Your task to perform on an android device: Toggle the flashlight Image 0: 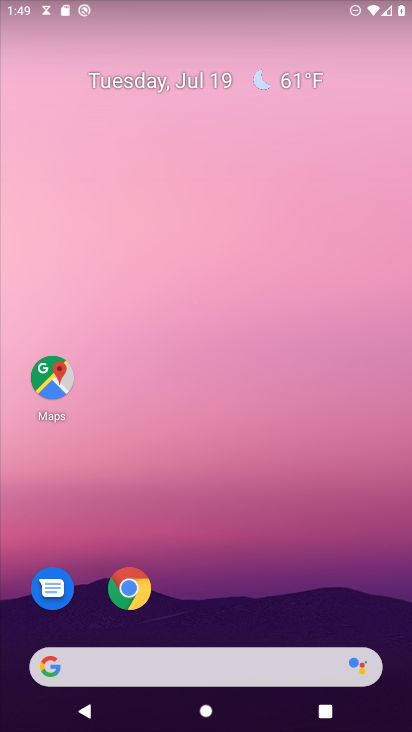
Step 0: drag from (280, 677) to (195, 223)
Your task to perform on an android device: Toggle the flashlight Image 1: 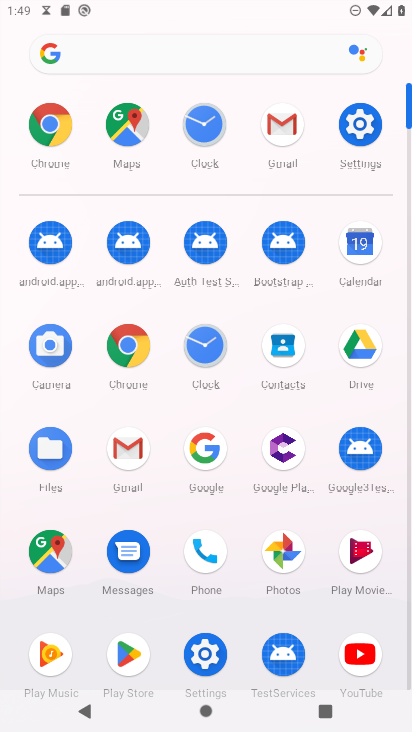
Step 1: click (364, 115)
Your task to perform on an android device: Toggle the flashlight Image 2: 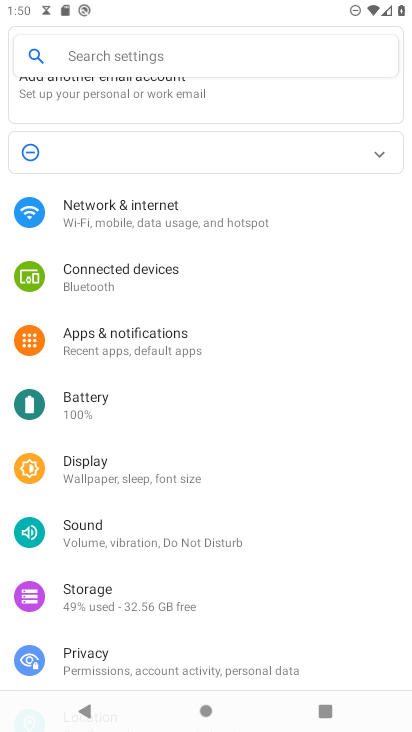
Step 2: click (93, 51)
Your task to perform on an android device: Toggle the flashlight Image 3: 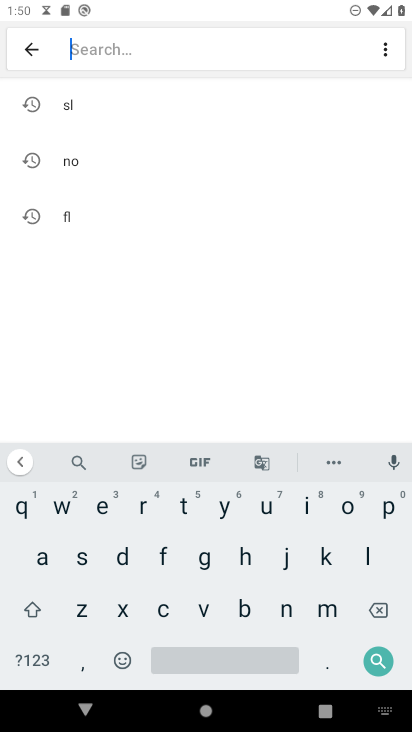
Step 3: click (165, 546)
Your task to perform on an android device: Toggle the flashlight Image 4: 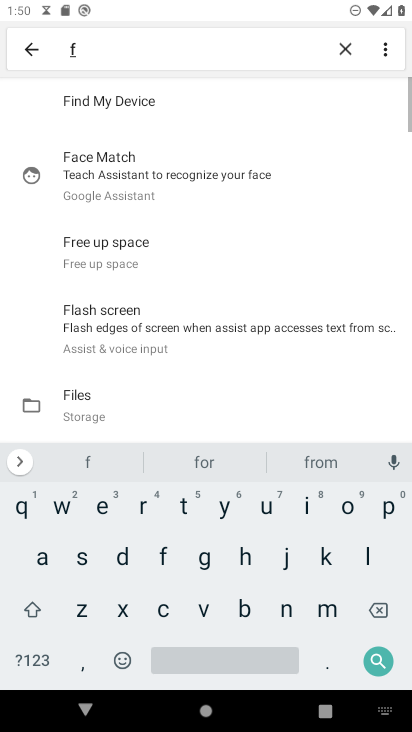
Step 4: click (370, 559)
Your task to perform on an android device: Toggle the flashlight Image 5: 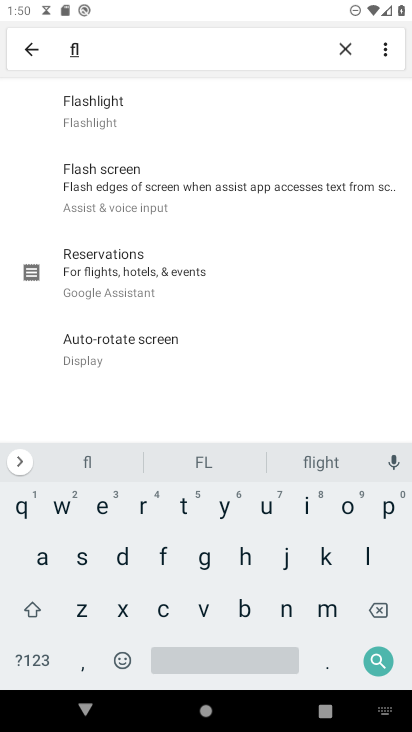
Step 5: click (104, 93)
Your task to perform on an android device: Toggle the flashlight Image 6: 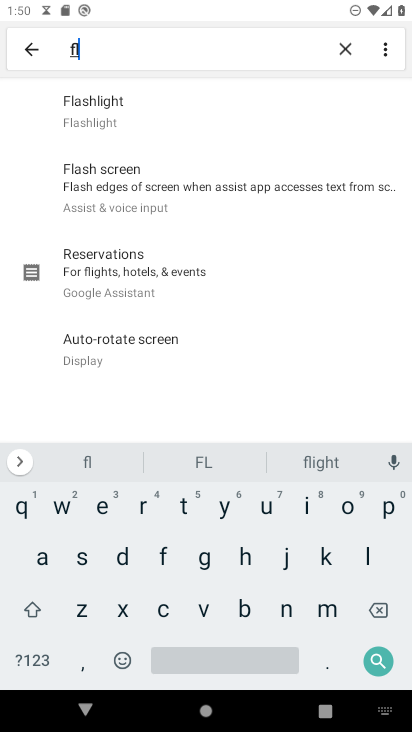
Step 6: task complete